Your task to perform on an android device: Go to Google Image 0: 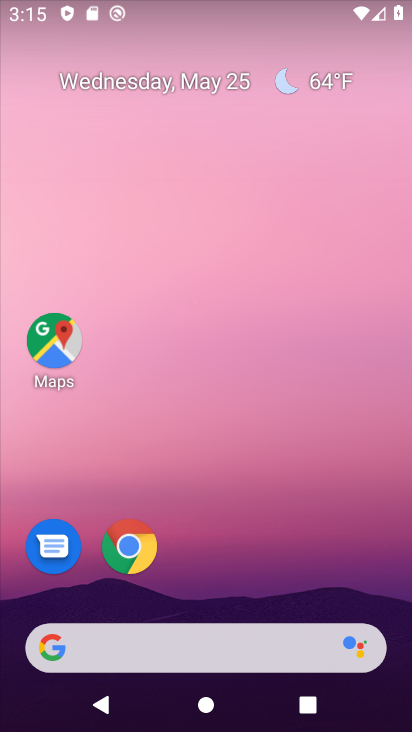
Step 0: drag from (184, 581) to (62, 196)
Your task to perform on an android device: Go to Google Image 1: 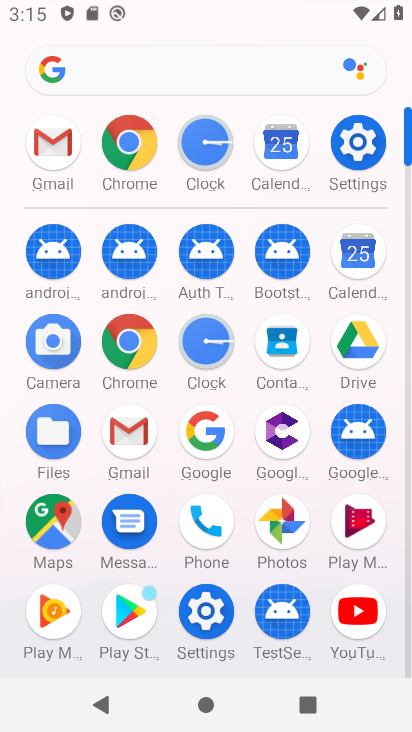
Step 1: click (206, 442)
Your task to perform on an android device: Go to Google Image 2: 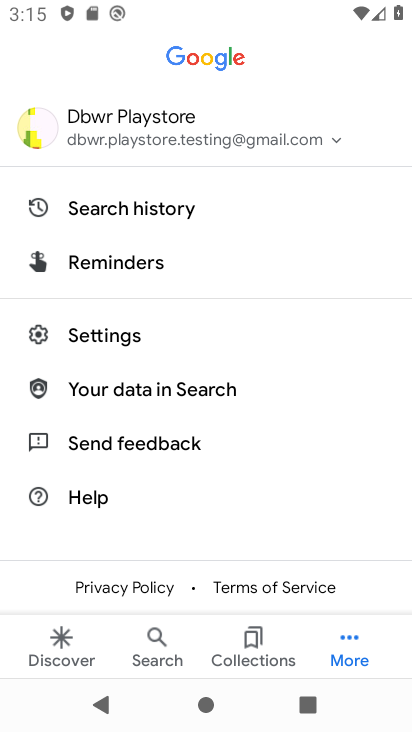
Step 2: click (63, 655)
Your task to perform on an android device: Go to Google Image 3: 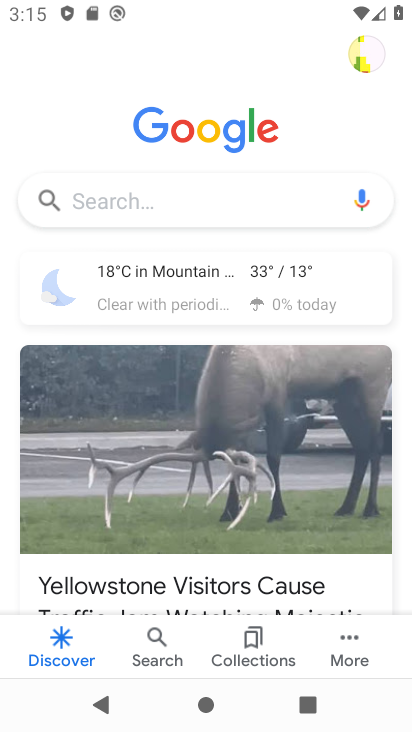
Step 3: task complete